Your task to perform on an android device: Search for vegetarian restaurants on Maps Image 0: 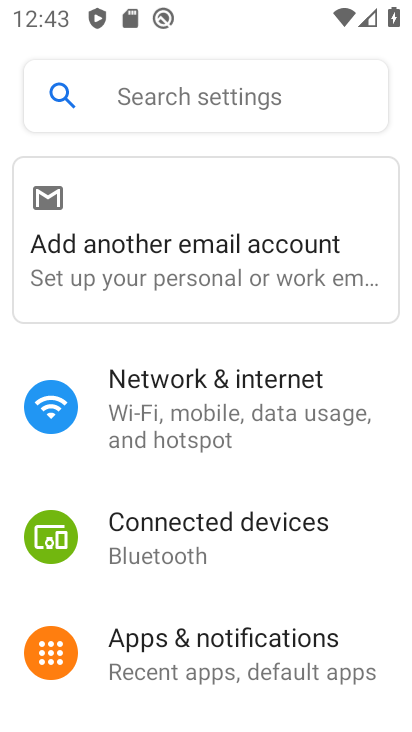
Step 0: press home button
Your task to perform on an android device: Search for vegetarian restaurants on Maps Image 1: 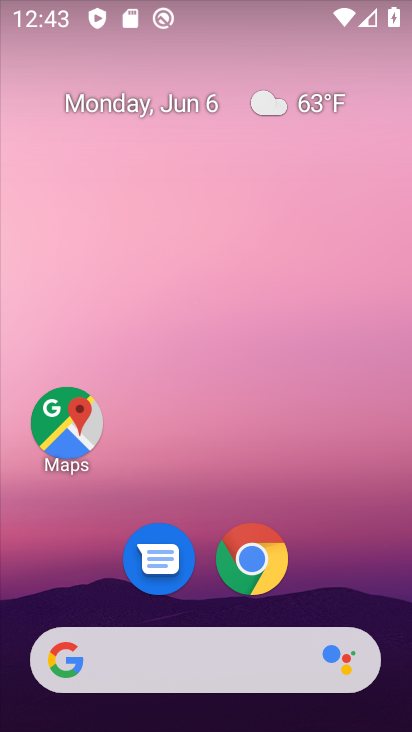
Step 1: click (62, 436)
Your task to perform on an android device: Search for vegetarian restaurants on Maps Image 2: 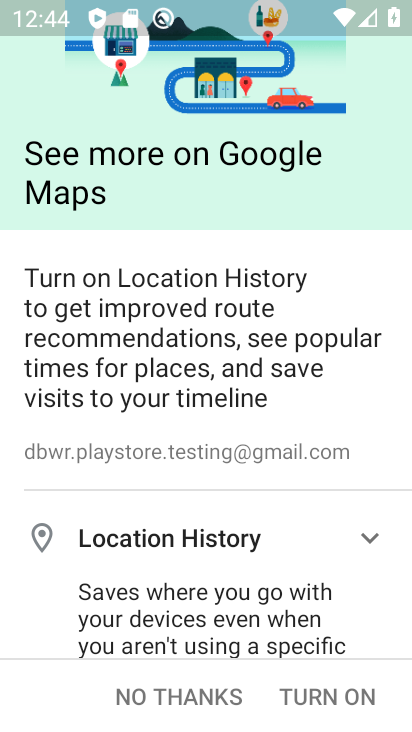
Step 2: click (169, 697)
Your task to perform on an android device: Search for vegetarian restaurants on Maps Image 3: 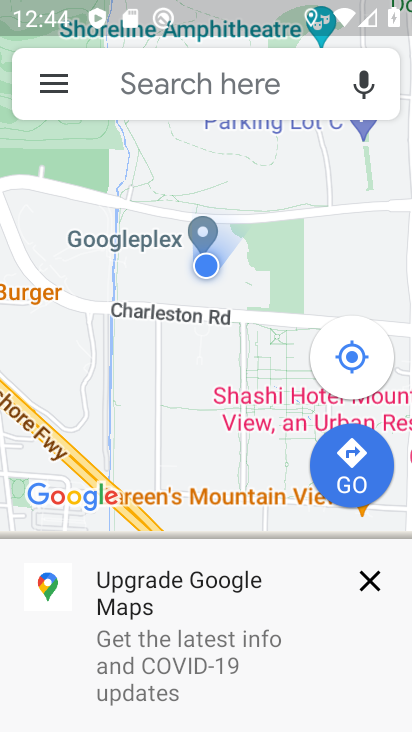
Step 3: click (208, 79)
Your task to perform on an android device: Search for vegetarian restaurants on Maps Image 4: 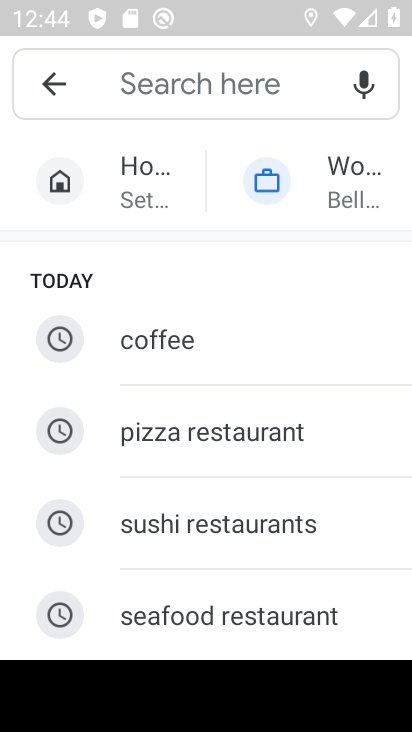
Step 4: type "vegetarian restaurants"
Your task to perform on an android device: Search for vegetarian restaurants on Maps Image 5: 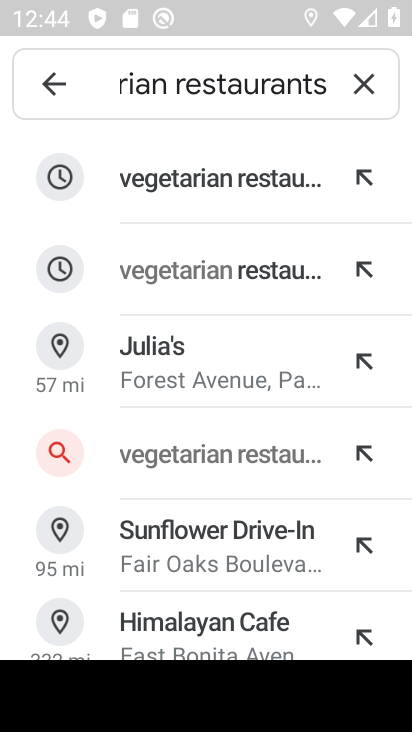
Step 5: click (197, 193)
Your task to perform on an android device: Search for vegetarian restaurants on Maps Image 6: 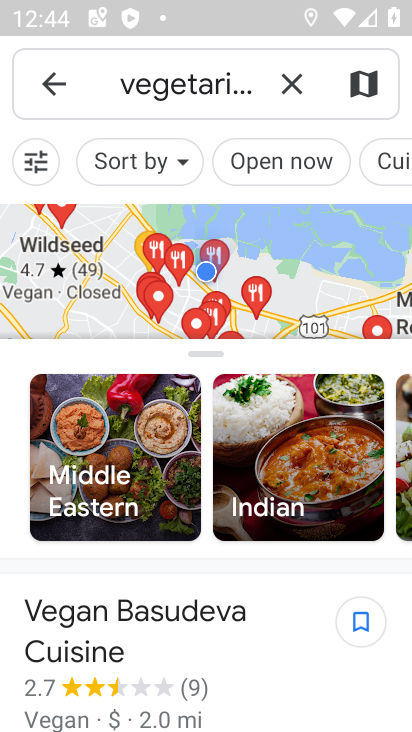
Step 6: task complete